Your task to perform on an android device: Open notification settings Image 0: 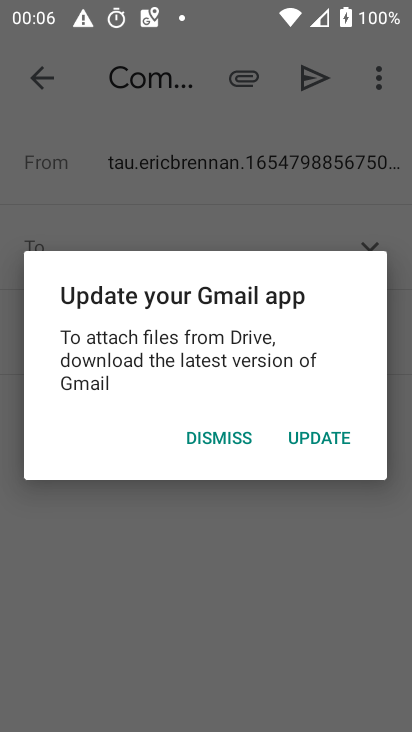
Step 0: click (227, 431)
Your task to perform on an android device: Open notification settings Image 1: 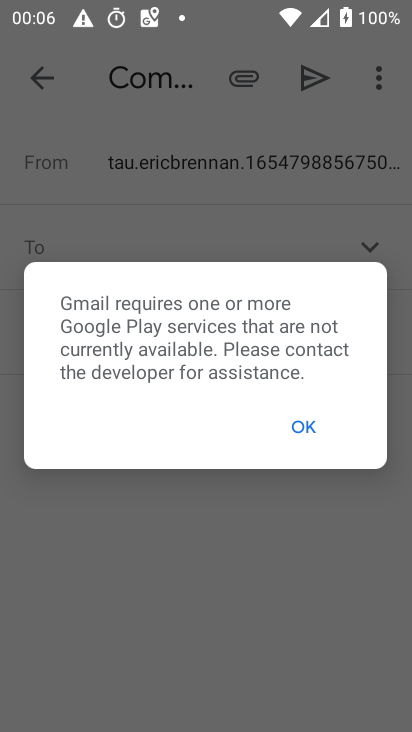
Step 1: press back button
Your task to perform on an android device: Open notification settings Image 2: 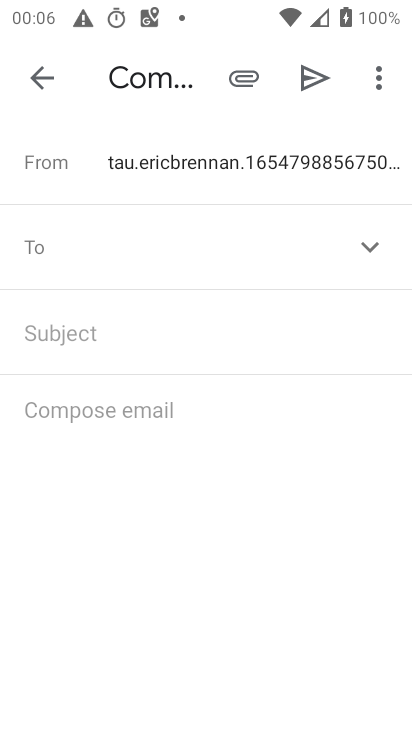
Step 2: click (307, 424)
Your task to perform on an android device: Open notification settings Image 3: 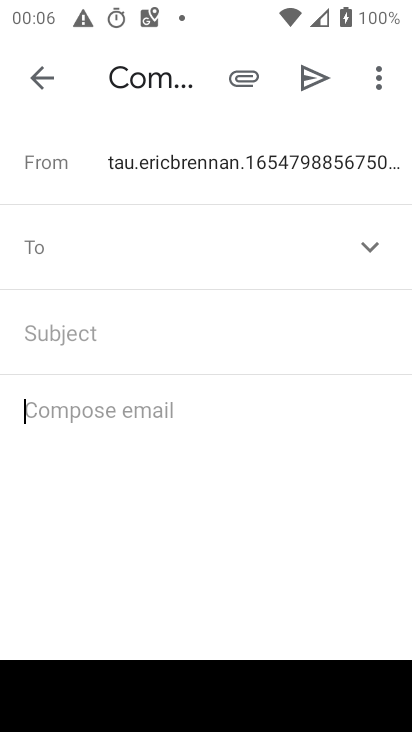
Step 3: click (44, 75)
Your task to perform on an android device: Open notification settings Image 4: 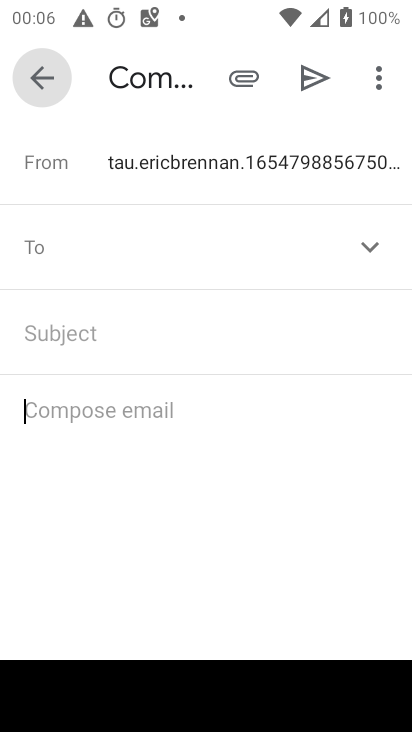
Step 4: click (43, 76)
Your task to perform on an android device: Open notification settings Image 5: 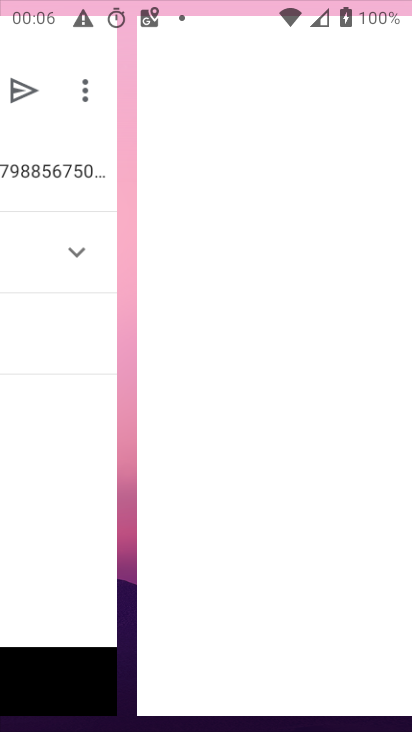
Step 5: click (42, 78)
Your task to perform on an android device: Open notification settings Image 6: 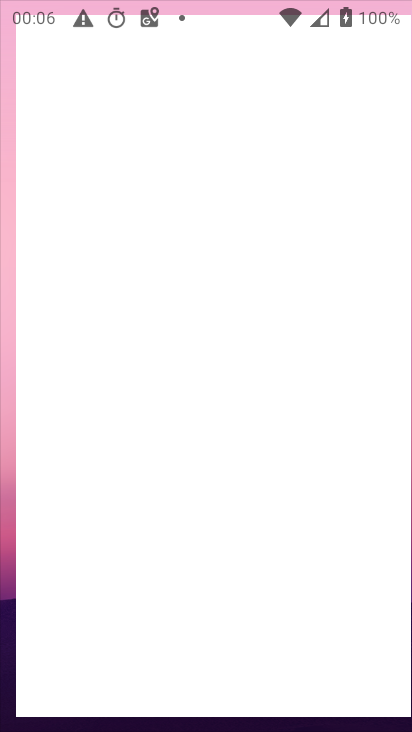
Step 6: click (41, 80)
Your task to perform on an android device: Open notification settings Image 7: 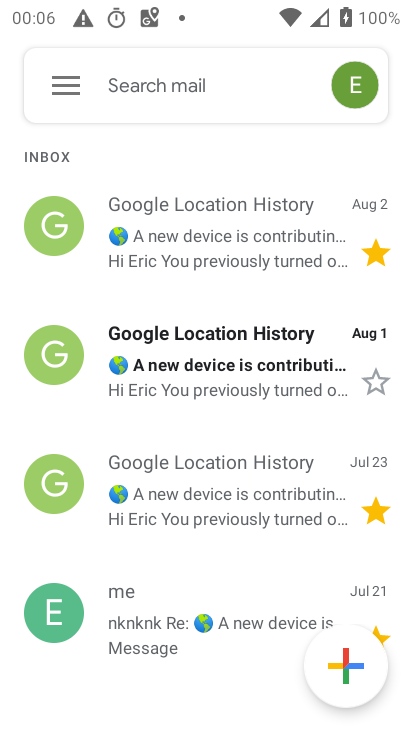
Step 7: press back button
Your task to perform on an android device: Open notification settings Image 8: 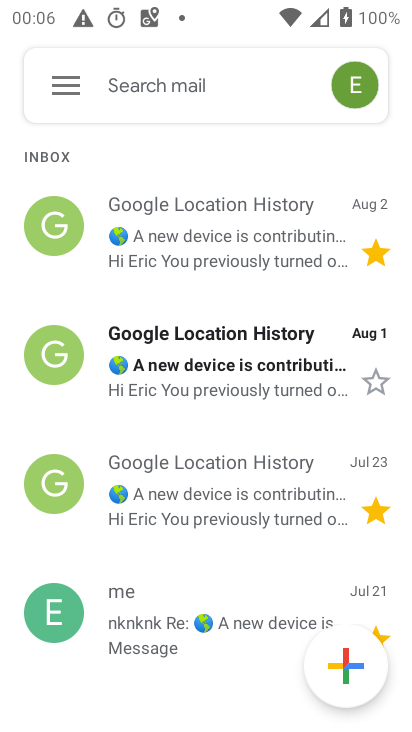
Step 8: press back button
Your task to perform on an android device: Open notification settings Image 9: 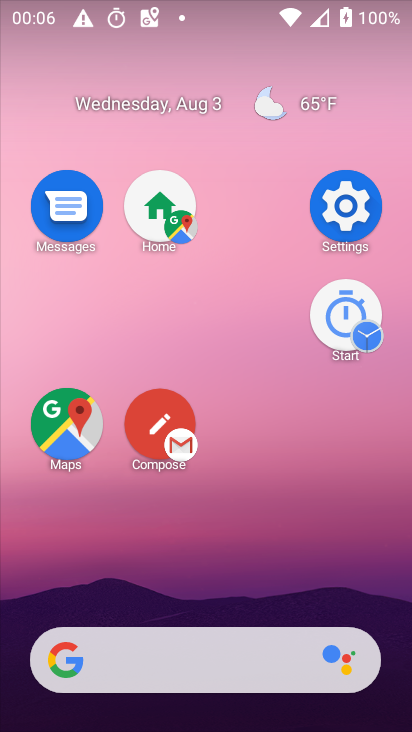
Step 9: drag from (338, 267) to (207, 2)
Your task to perform on an android device: Open notification settings Image 10: 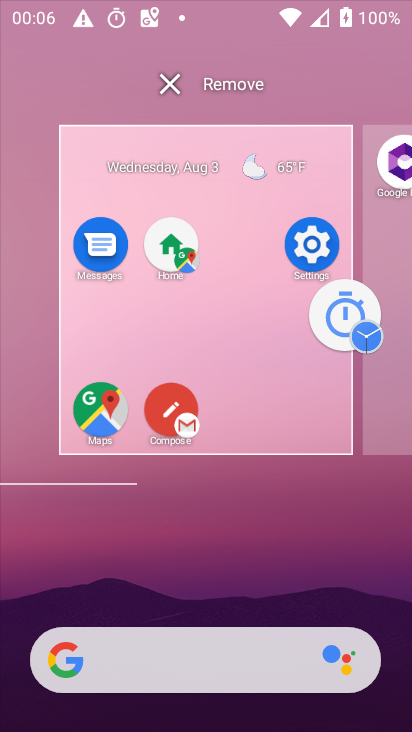
Step 10: drag from (224, 414) to (193, 246)
Your task to perform on an android device: Open notification settings Image 11: 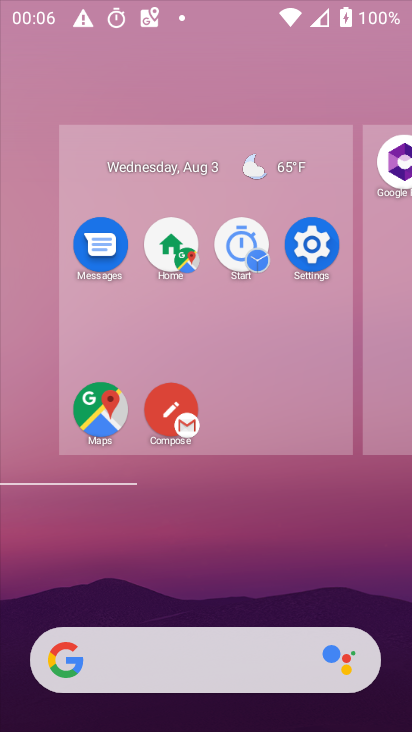
Step 11: click (174, 15)
Your task to perform on an android device: Open notification settings Image 12: 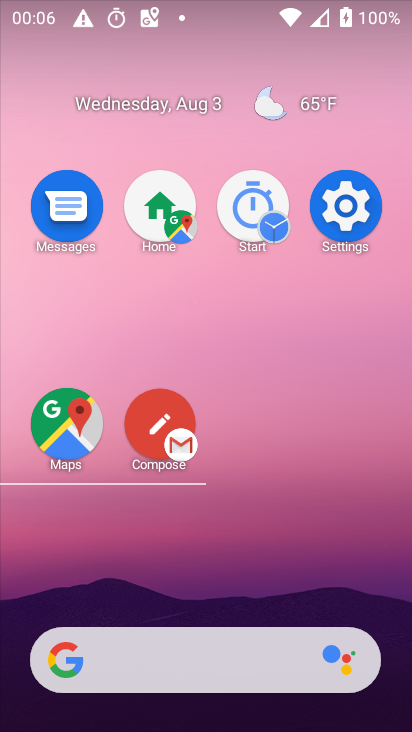
Step 12: click (192, 3)
Your task to perform on an android device: Open notification settings Image 13: 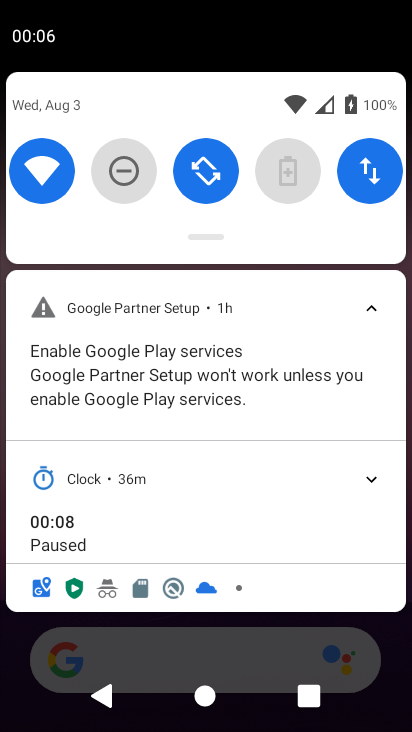
Step 13: press back button
Your task to perform on an android device: Open notification settings Image 14: 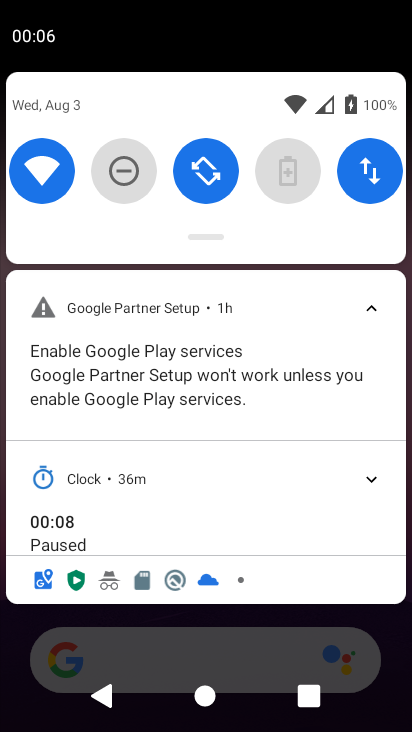
Step 14: press back button
Your task to perform on an android device: Open notification settings Image 15: 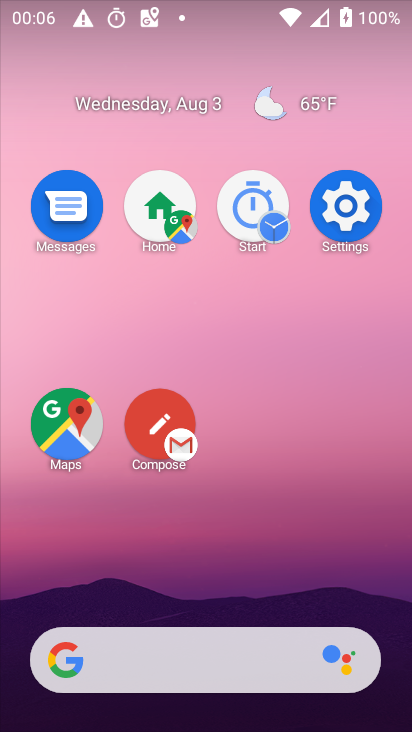
Step 15: drag from (309, 238) to (268, 88)
Your task to perform on an android device: Open notification settings Image 16: 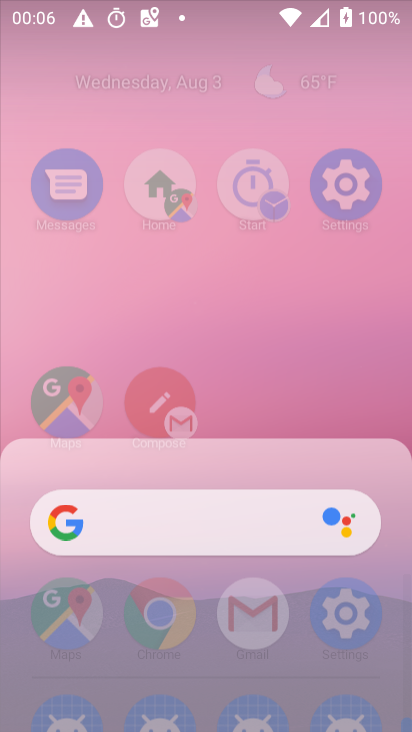
Step 16: drag from (253, 435) to (179, 128)
Your task to perform on an android device: Open notification settings Image 17: 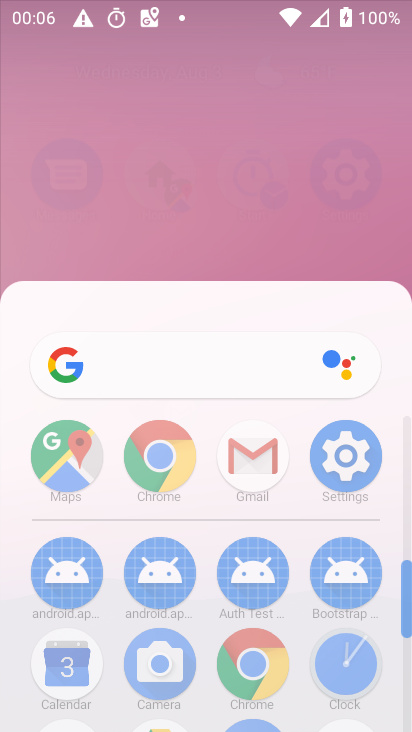
Step 17: drag from (244, 441) to (217, 149)
Your task to perform on an android device: Open notification settings Image 18: 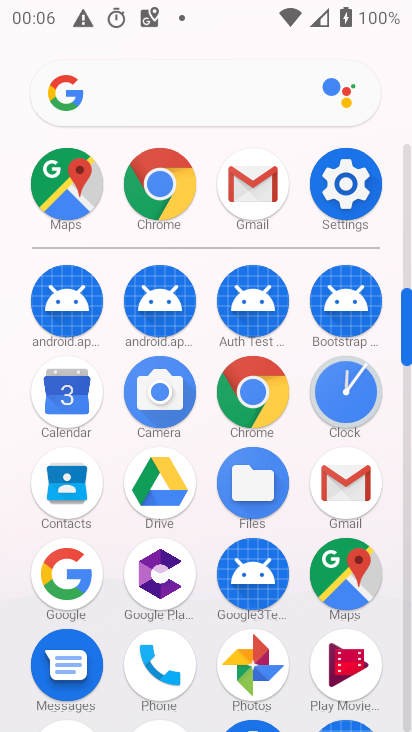
Step 18: click (340, 188)
Your task to perform on an android device: Open notification settings Image 19: 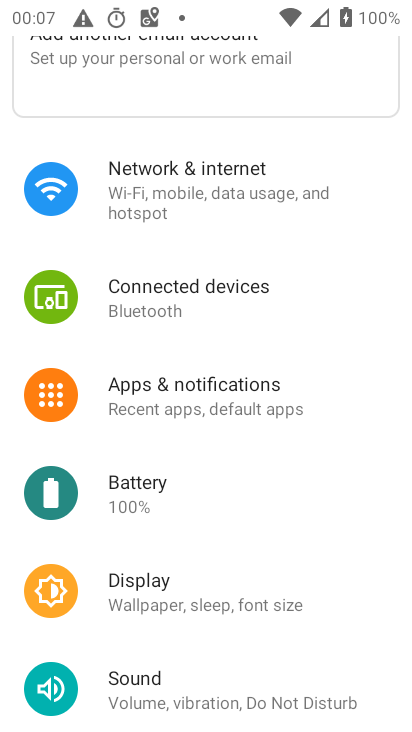
Step 19: click (213, 389)
Your task to perform on an android device: Open notification settings Image 20: 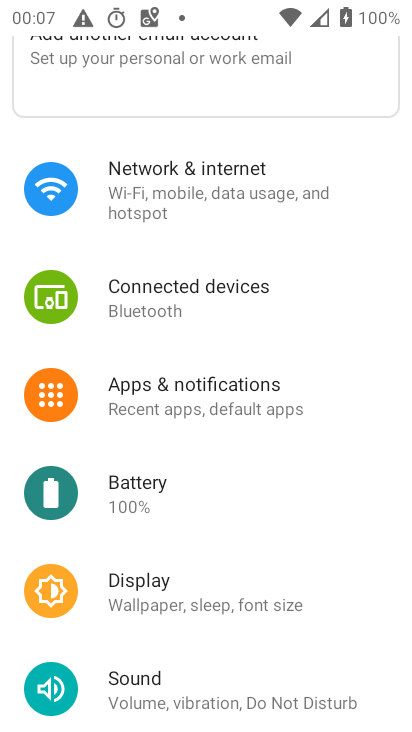
Step 20: click (213, 389)
Your task to perform on an android device: Open notification settings Image 21: 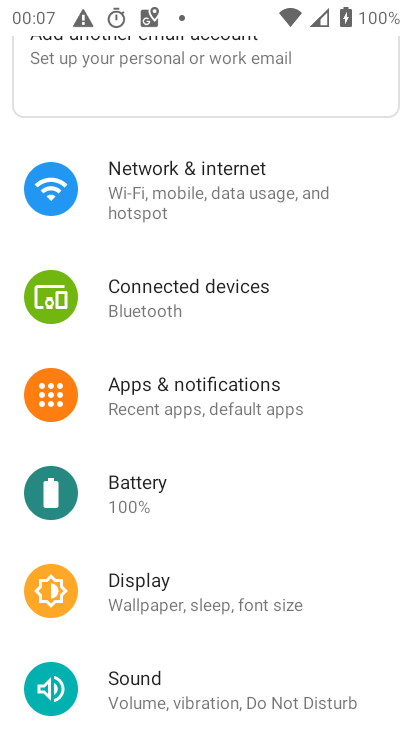
Step 21: click (213, 389)
Your task to perform on an android device: Open notification settings Image 22: 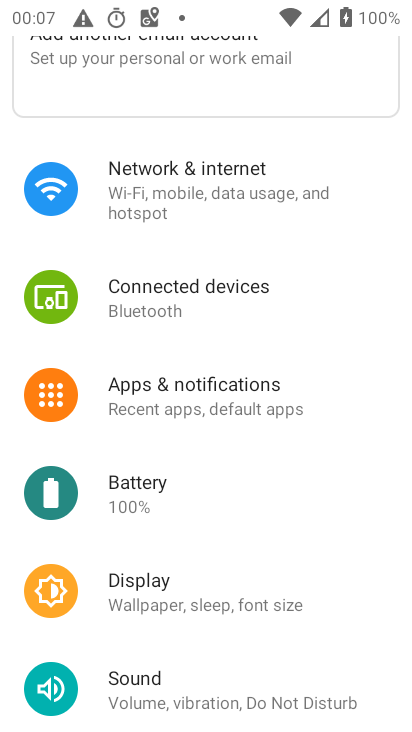
Step 22: click (211, 391)
Your task to perform on an android device: Open notification settings Image 23: 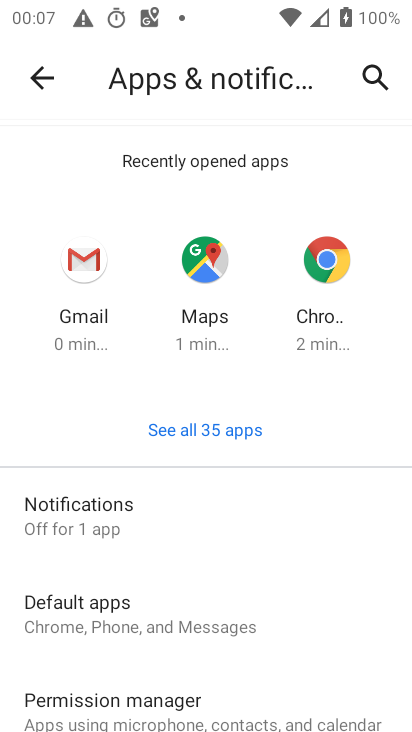
Step 23: task complete